Your task to perform on an android device: delete location history Image 0: 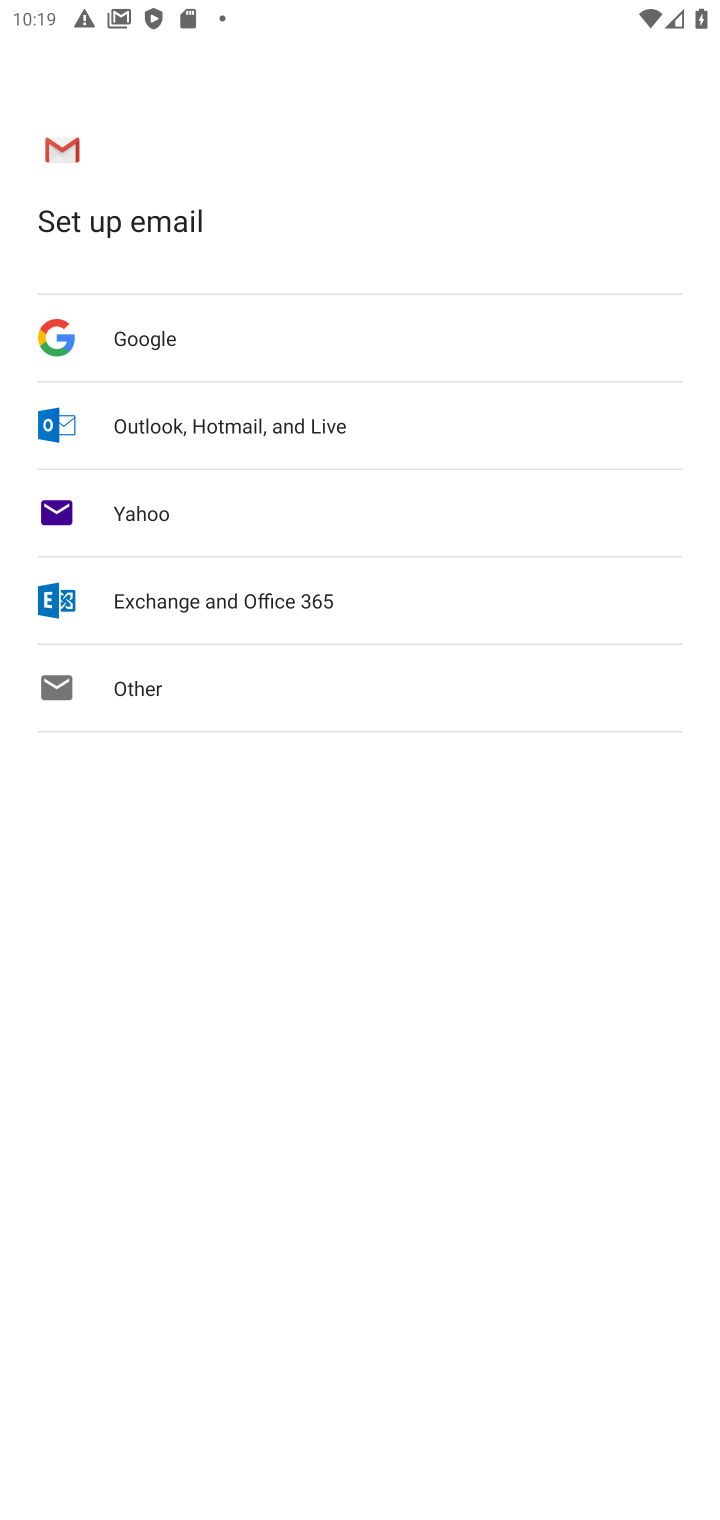
Step 0: press home button
Your task to perform on an android device: delete location history Image 1: 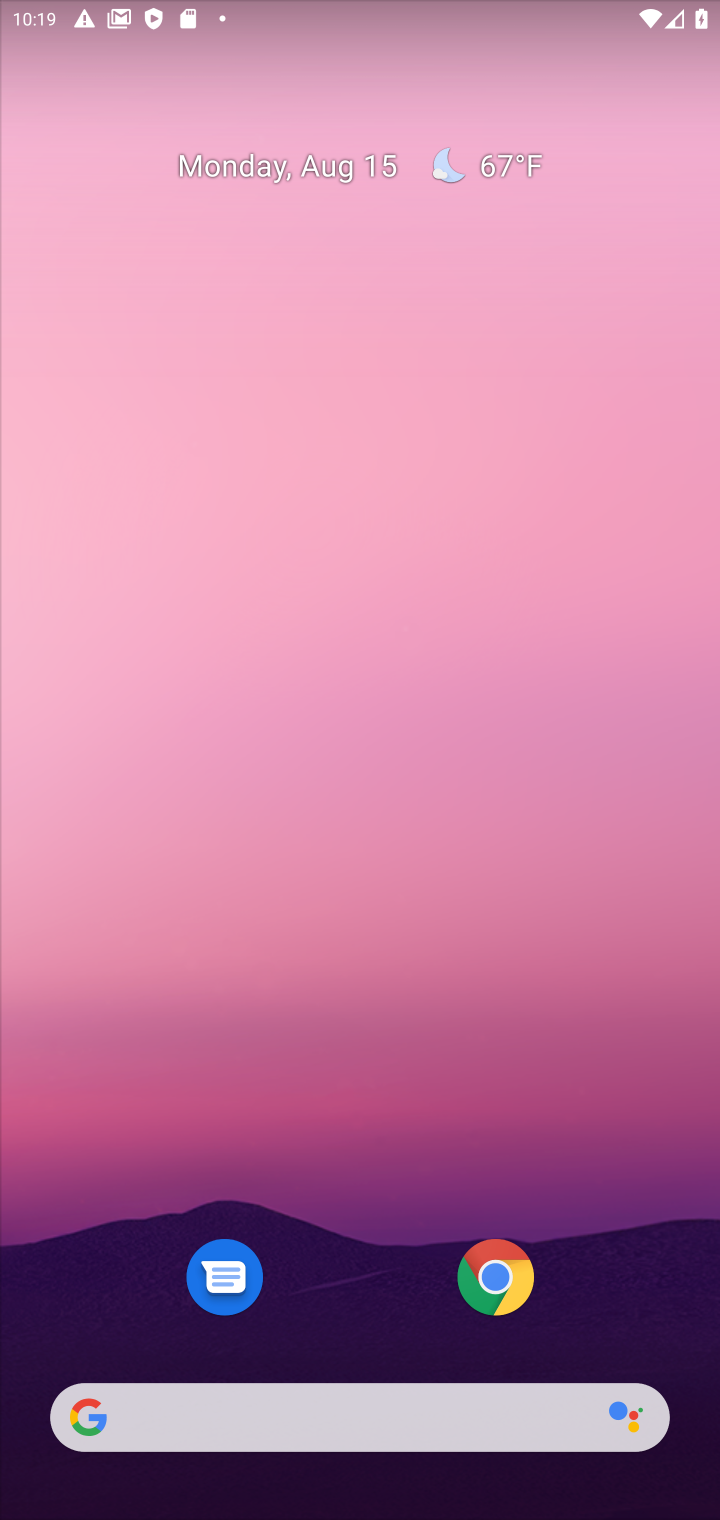
Step 1: drag from (353, 1419) to (420, 210)
Your task to perform on an android device: delete location history Image 2: 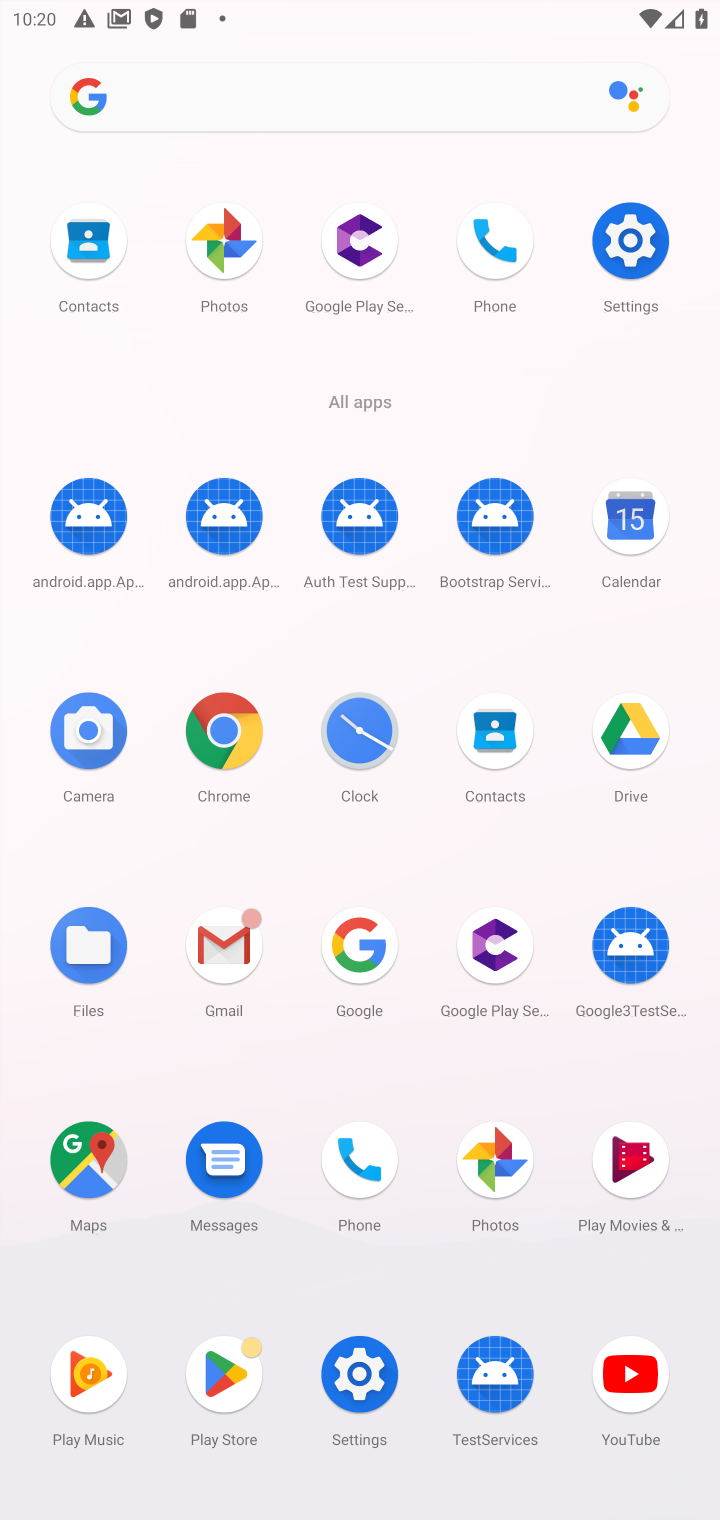
Step 2: click (77, 1181)
Your task to perform on an android device: delete location history Image 3: 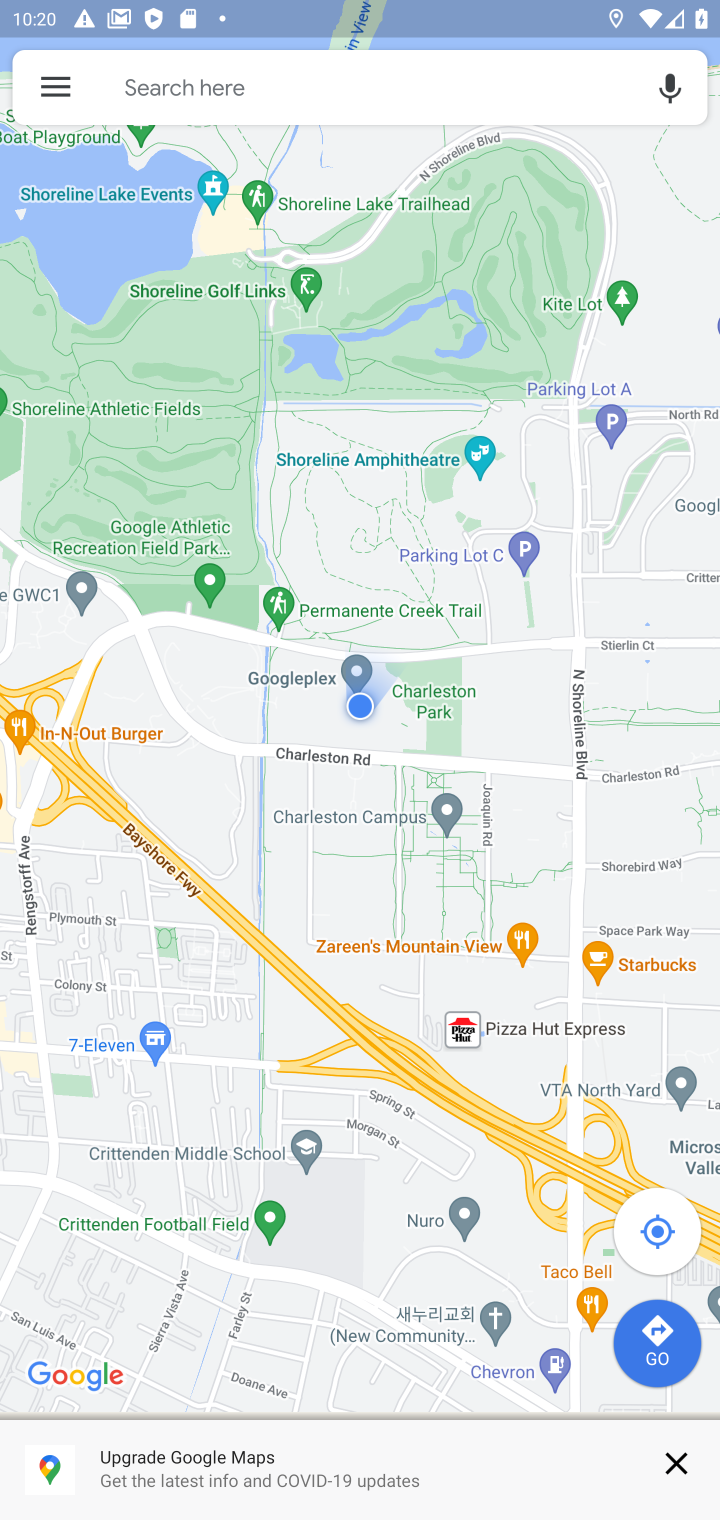
Step 3: click (56, 87)
Your task to perform on an android device: delete location history Image 4: 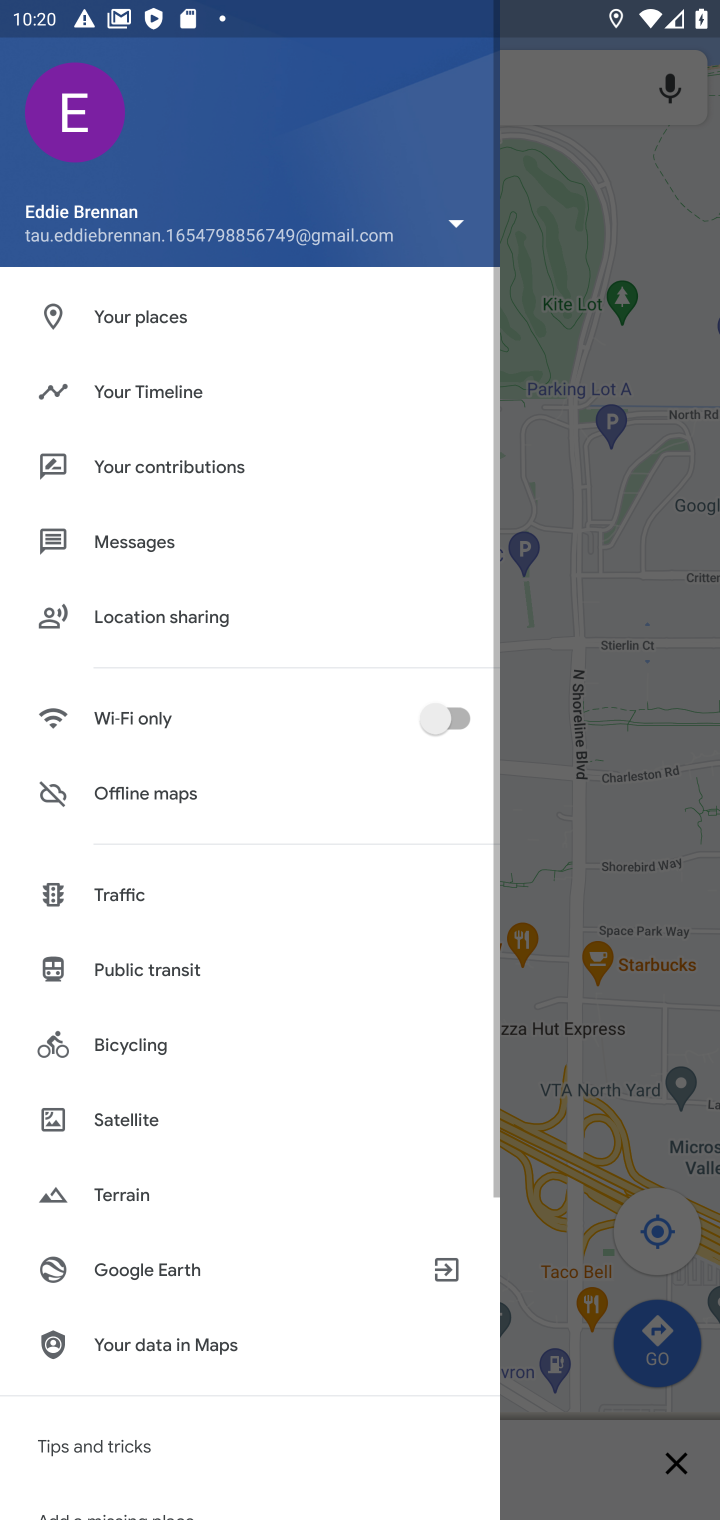
Step 4: click (193, 403)
Your task to perform on an android device: delete location history Image 5: 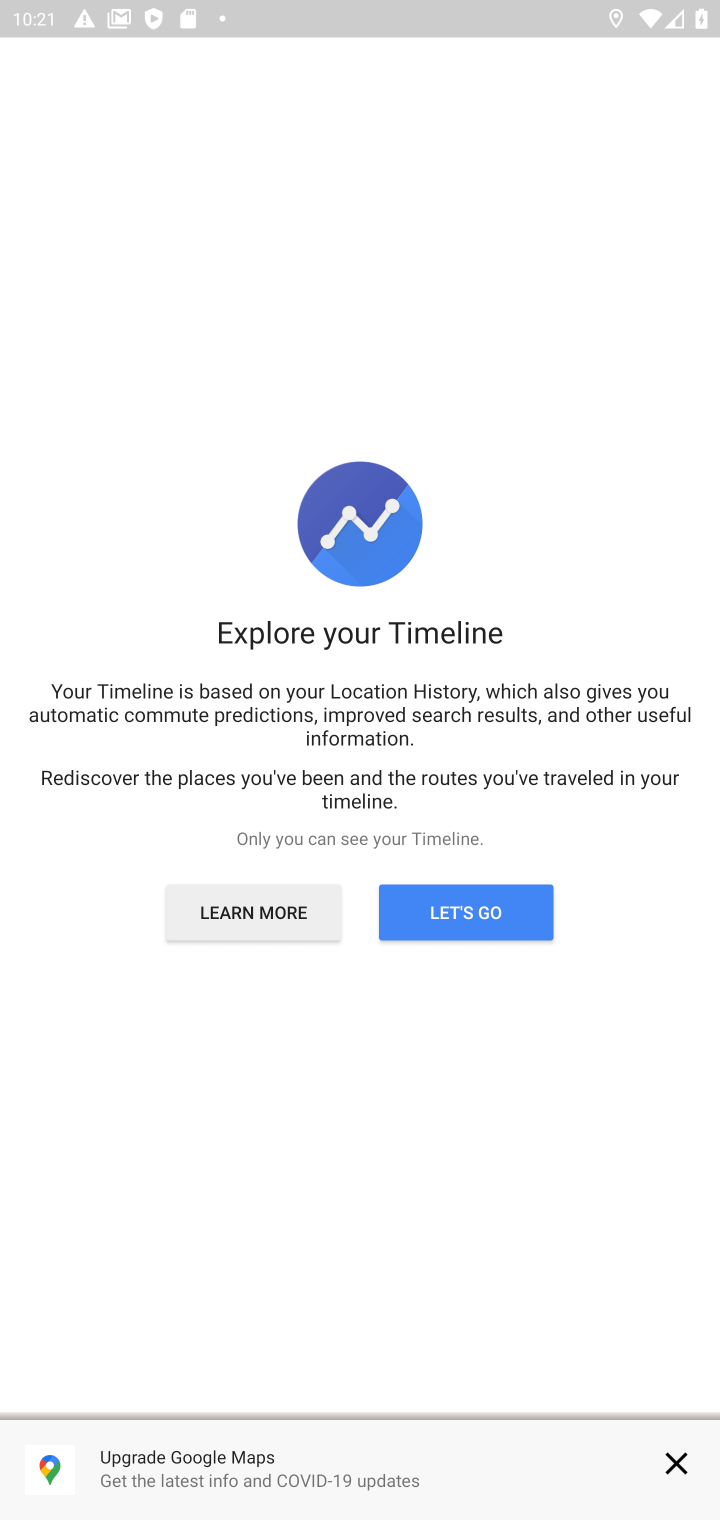
Step 5: click (438, 912)
Your task to perform on an android device: delete location history Image 6: 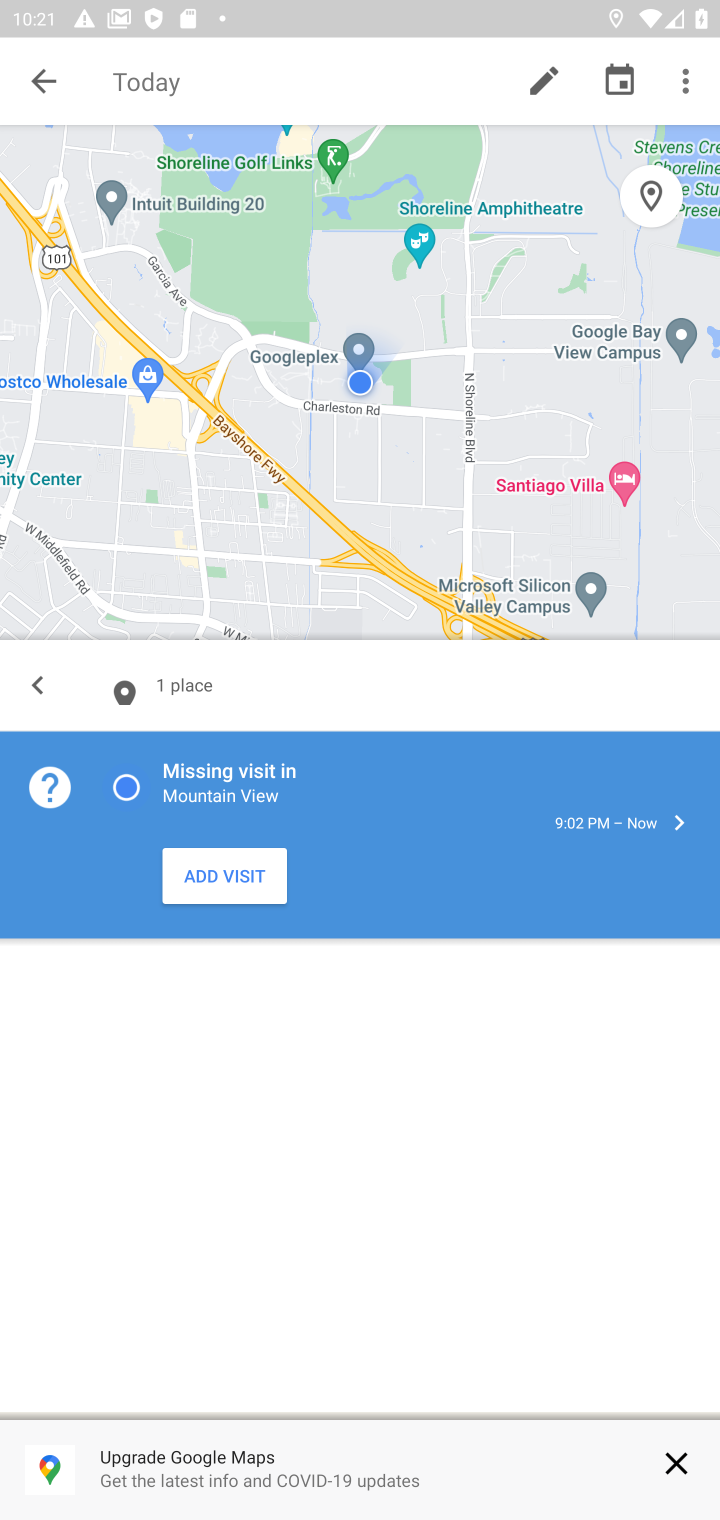
Step 6: click (700, 83)
Your task to perform on an android device: delete location history Image 7: 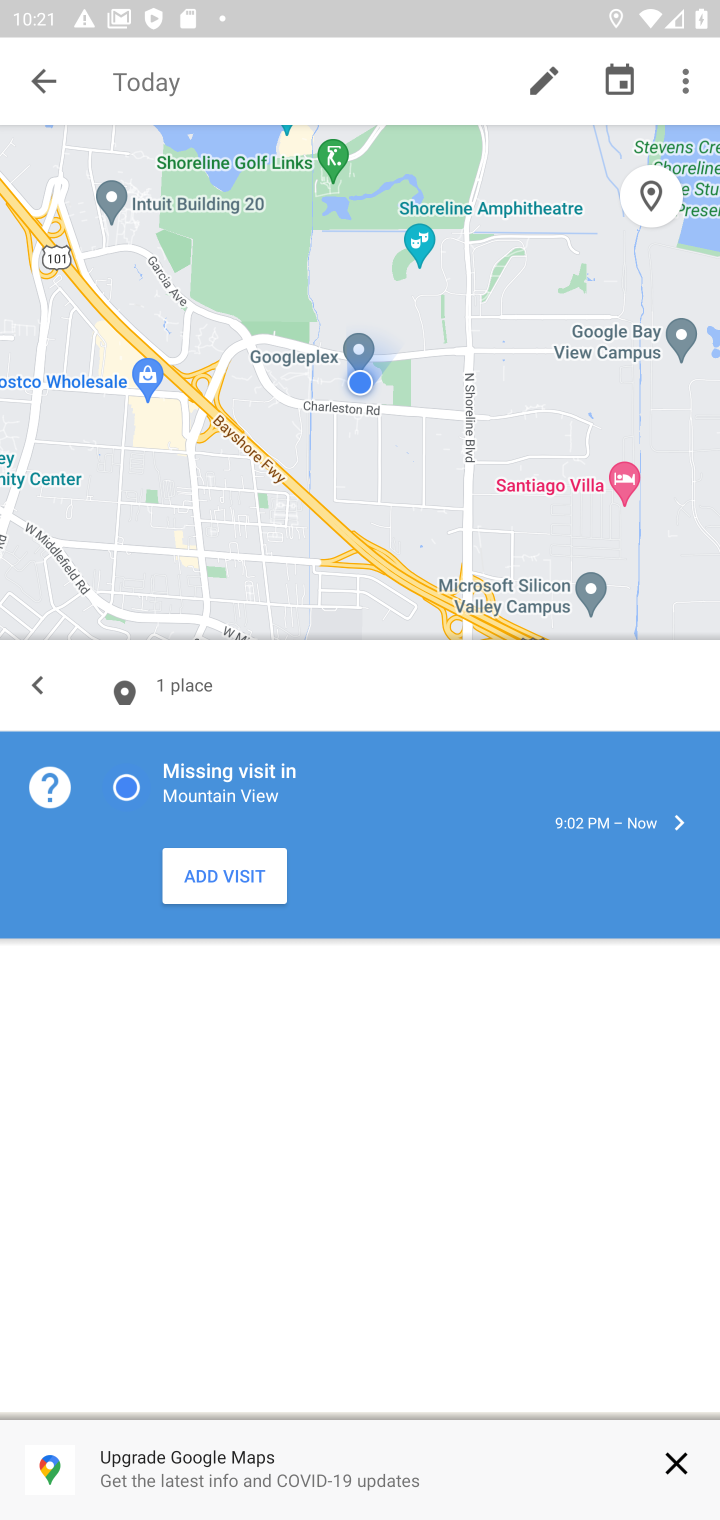
Step 7: click (696, 83)
Your task to perform on an android device: delete location history Image 8: 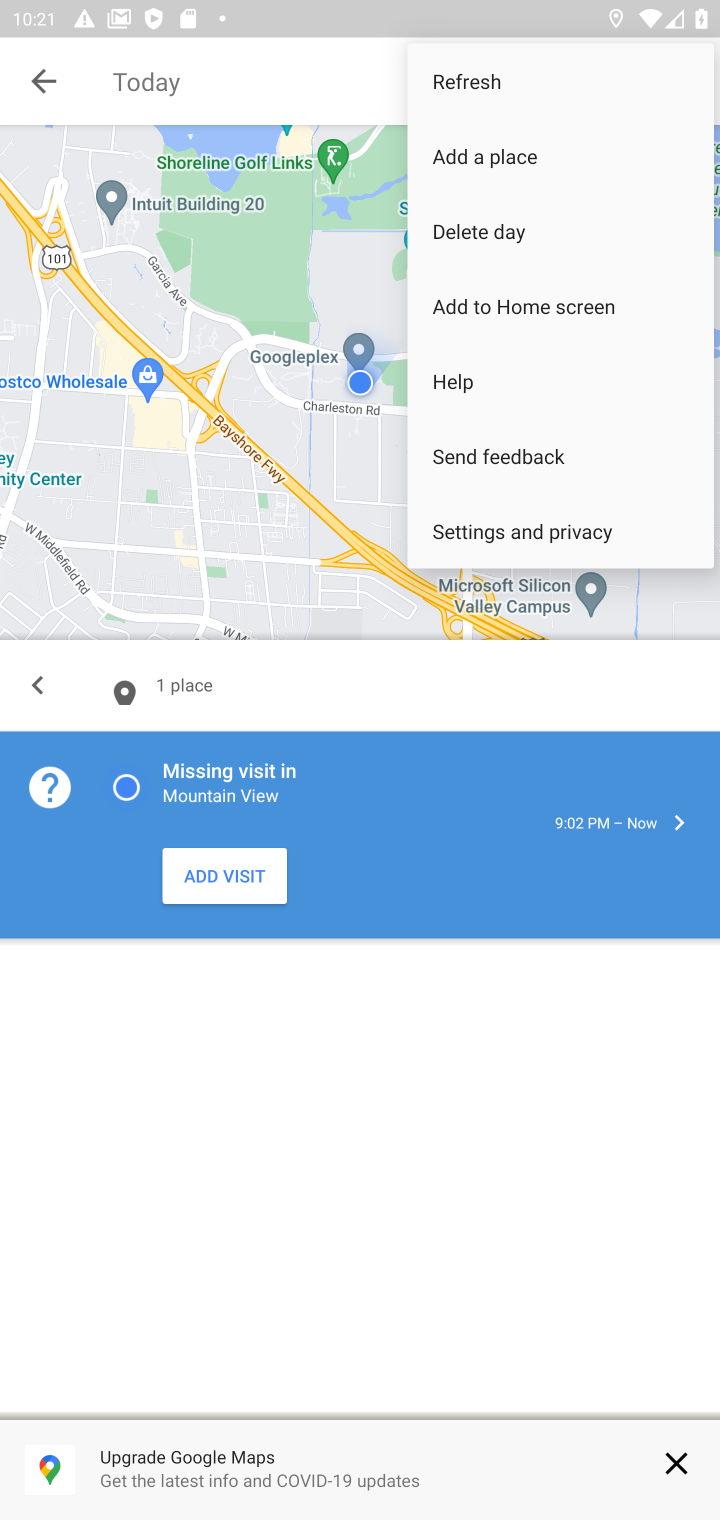
Step 8: click (507, 542)
Your task to perform on an android device: delete location history Image 9: 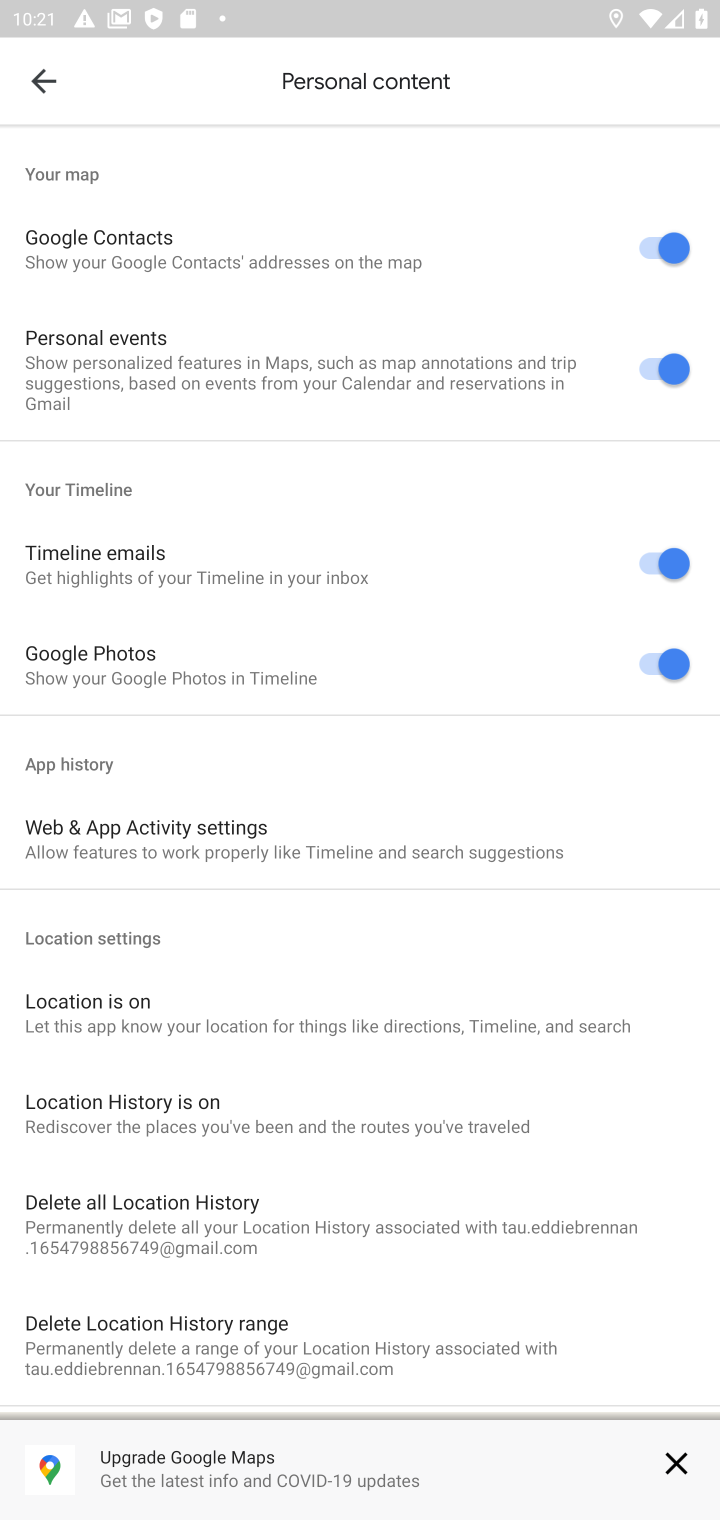
Step 9: drag from (364, 1317) to (377, 533)
Your task to perform on an android device: delete location history Image 10: 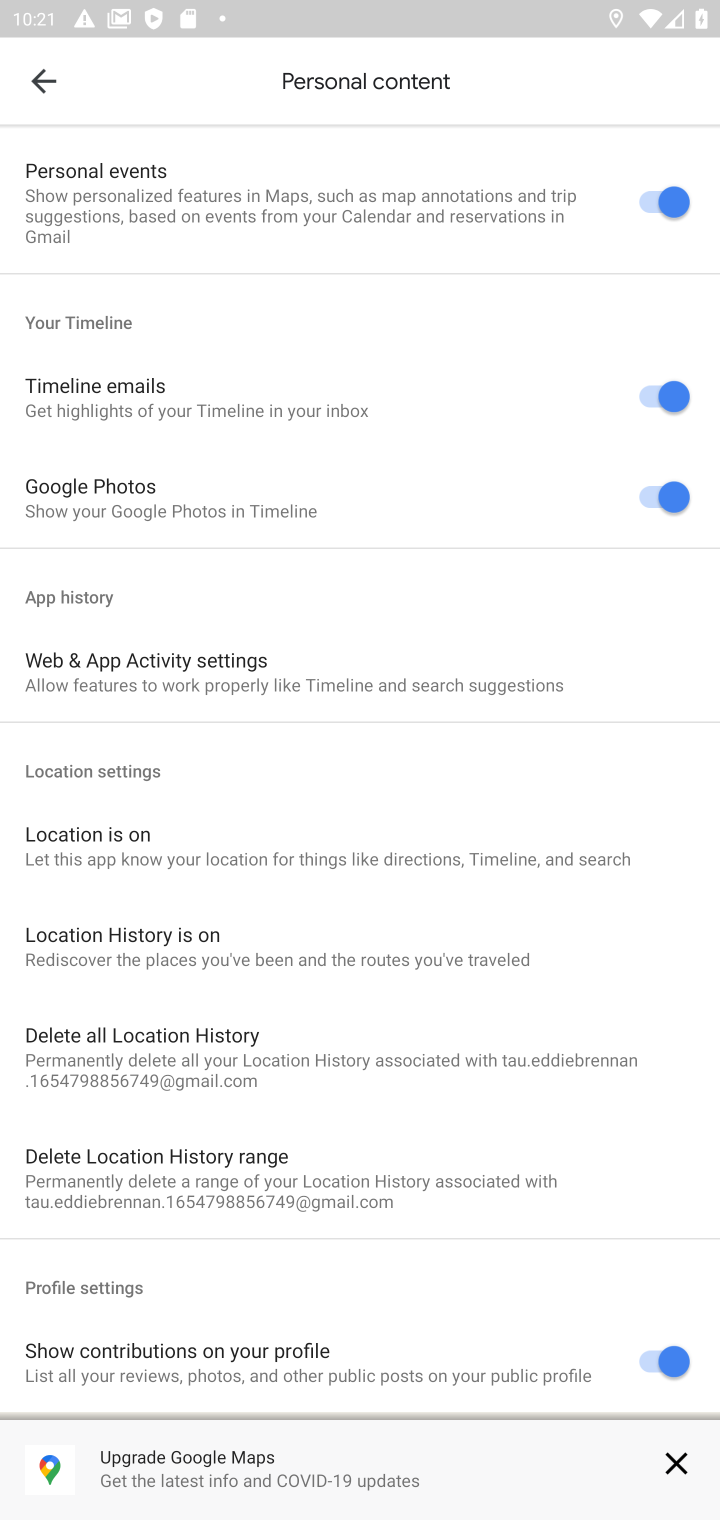
Step 10: click (293, 1050)
Your task to perform on an android device: delete location history Image 11: 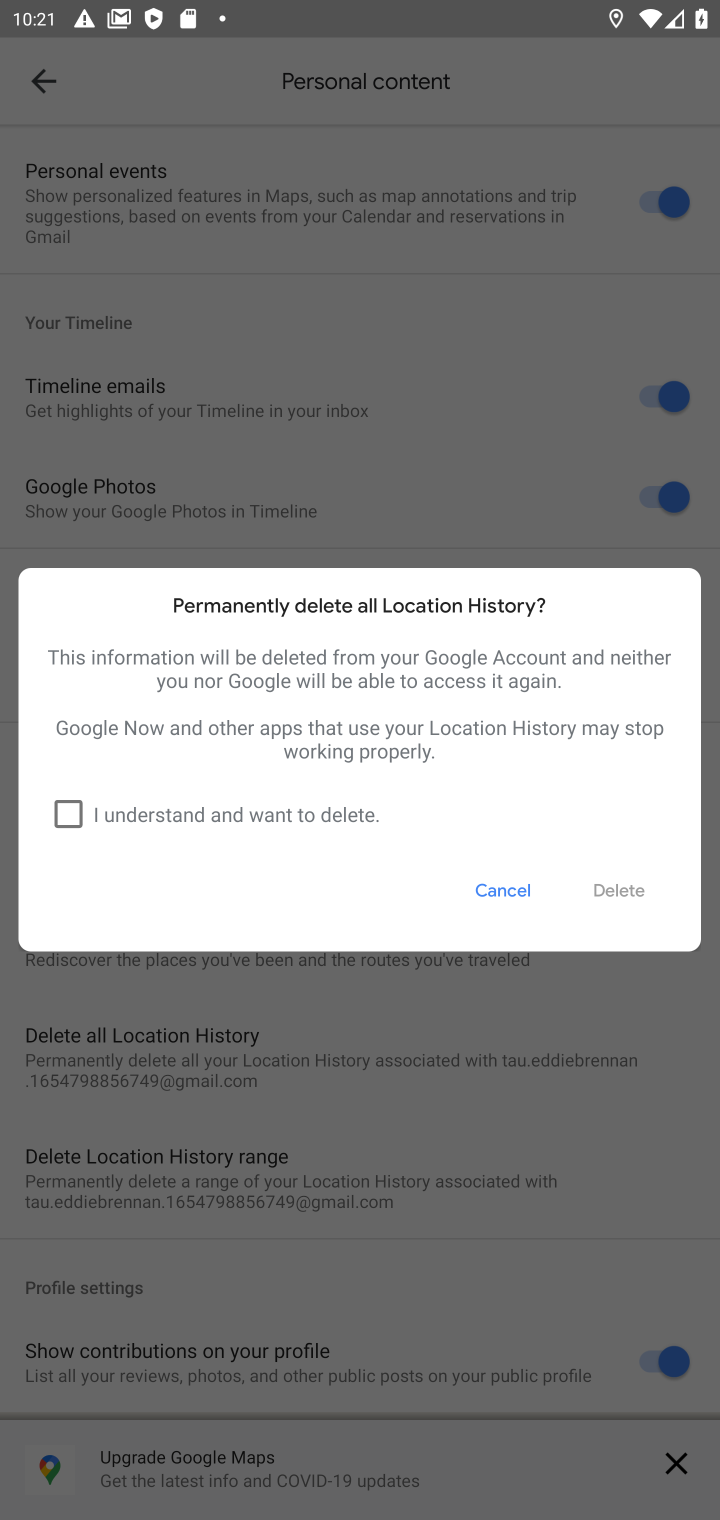
Step 11: click (274, 829)
Your task to perform on an android device: delete location history Image 12: 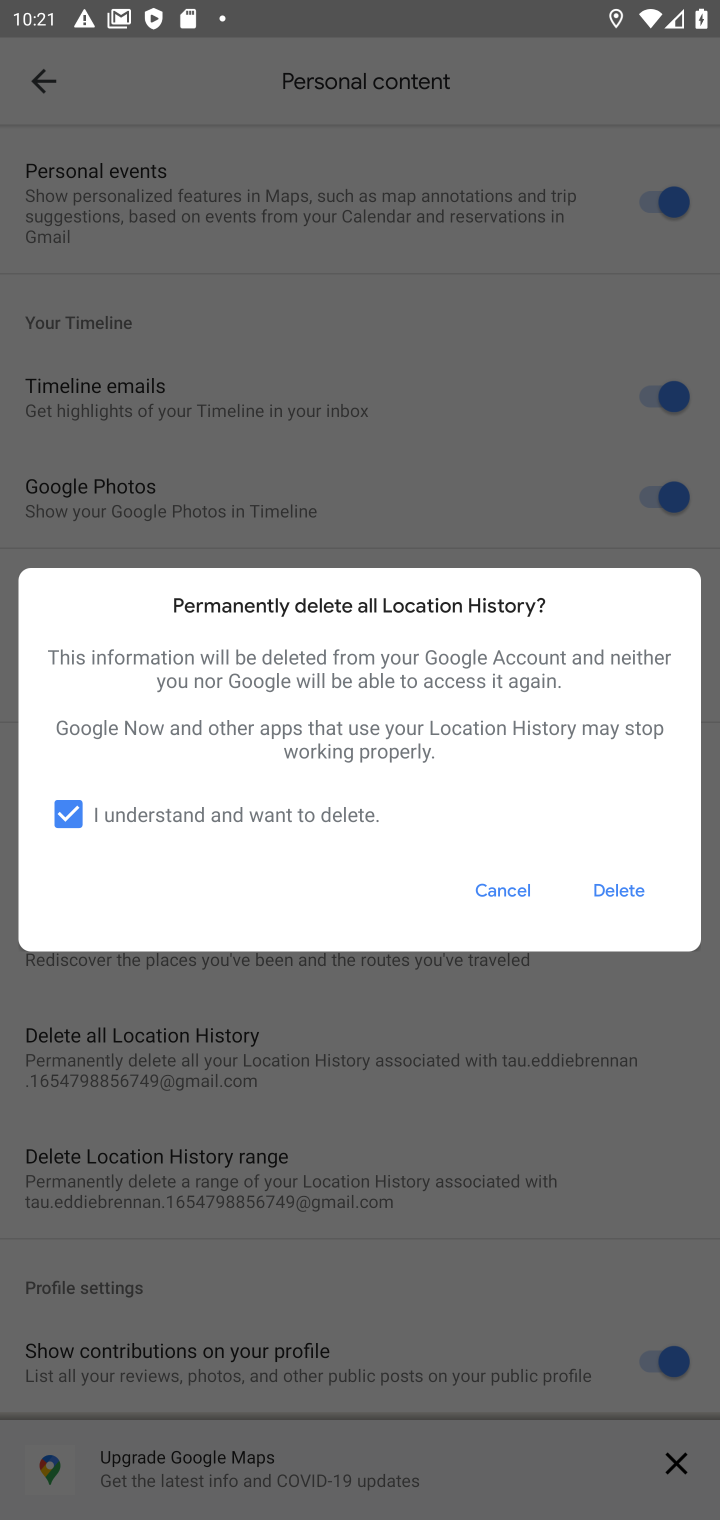
Step 12: click (620, 898)
Your task to perform on an android device: delete location history Image 13: 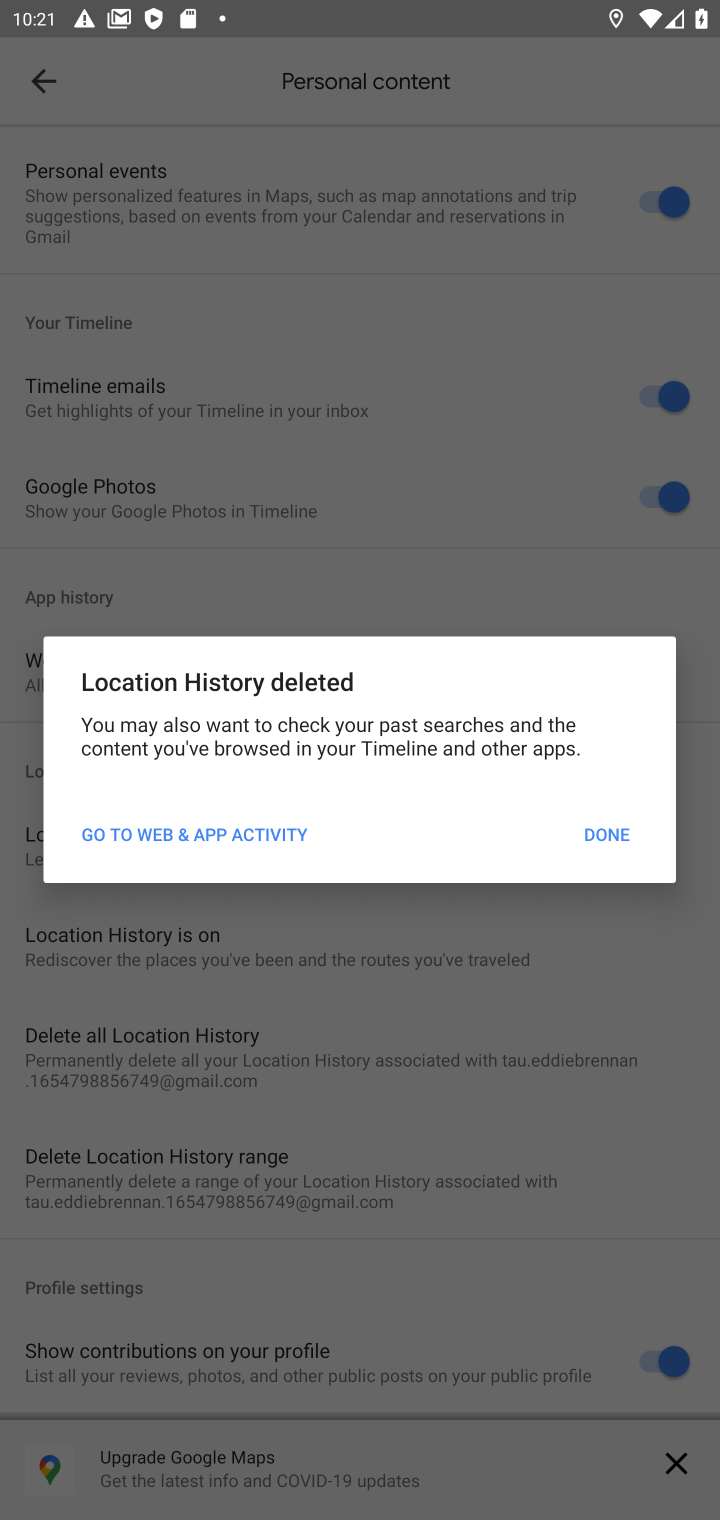
Step 13: click (590, 818)
Your task to perform on an android device: delete location history Image 14: 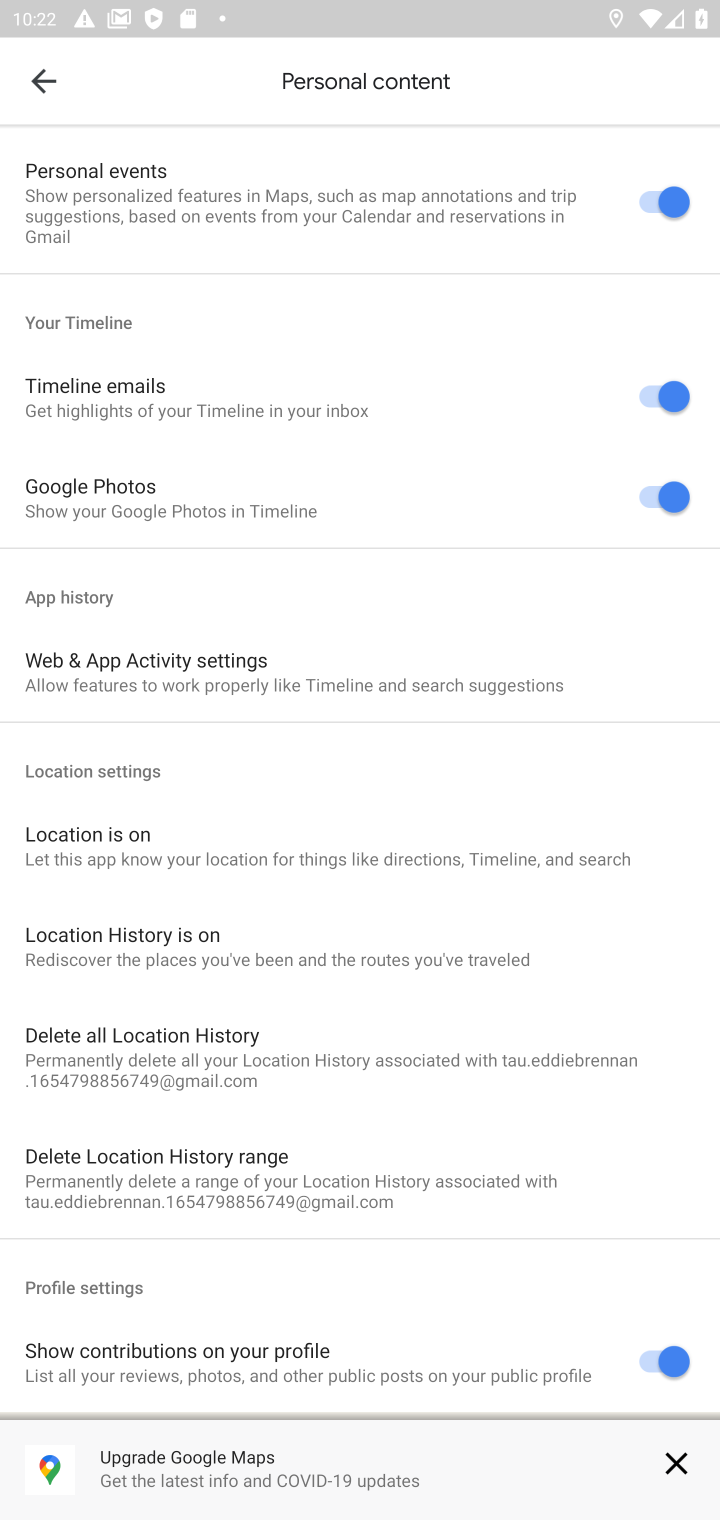
Step 14: task complete